Your task to perform on an android device: install app "Life360: Find Family & Friends" Image 0: 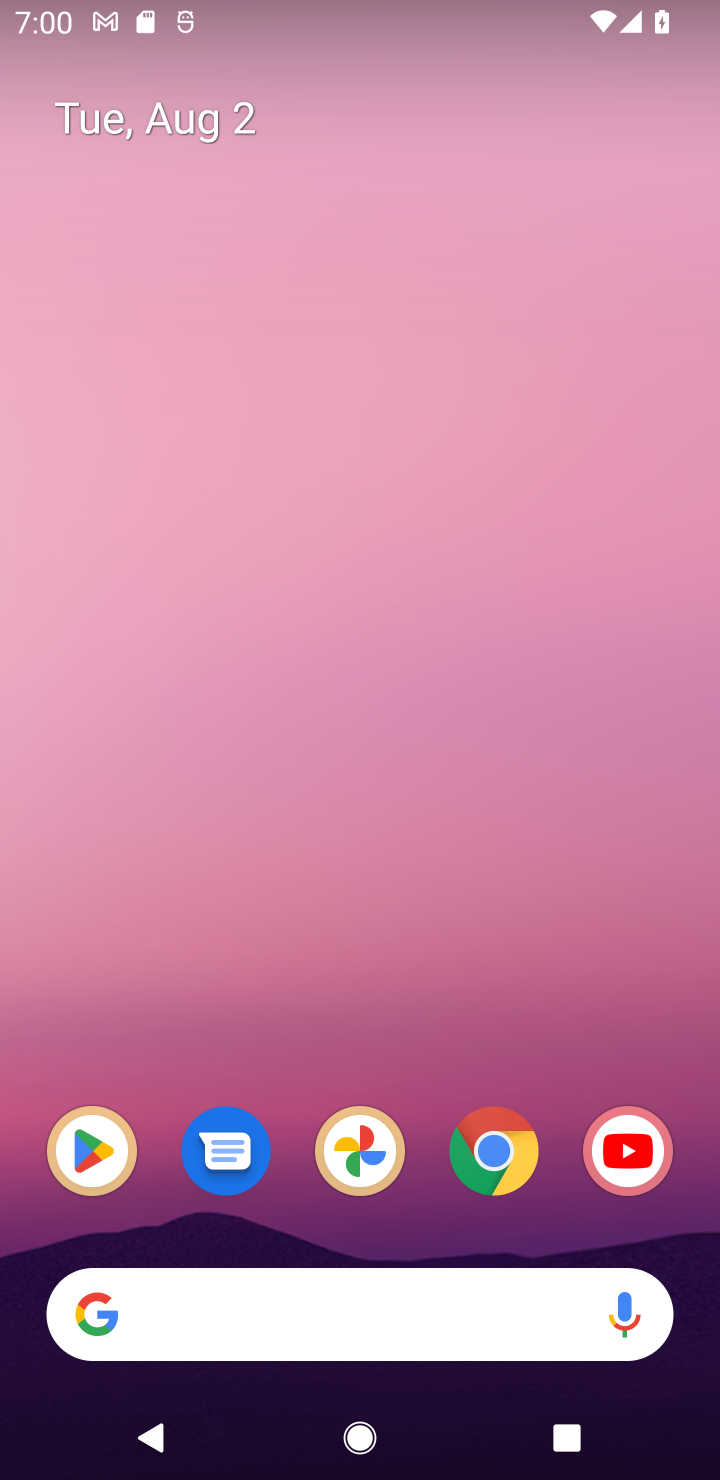
Step 0: click (113, 1142)
Your task to perform on an android device: install app "Life360: Find Family & Friends" Image 1: 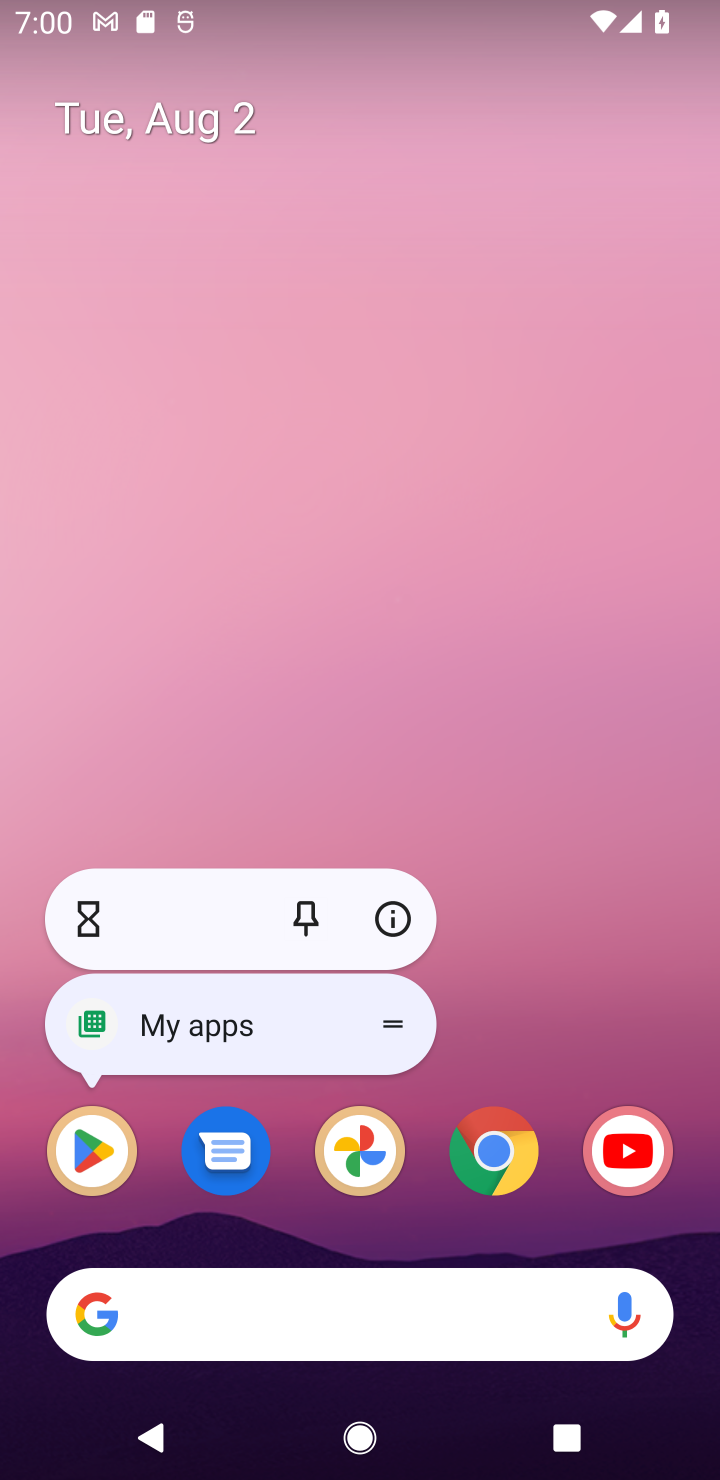
Step 1: click (113, 1142)
Your task to perform on an android device: install app "Life360: Find Family & Friends" Image 2: 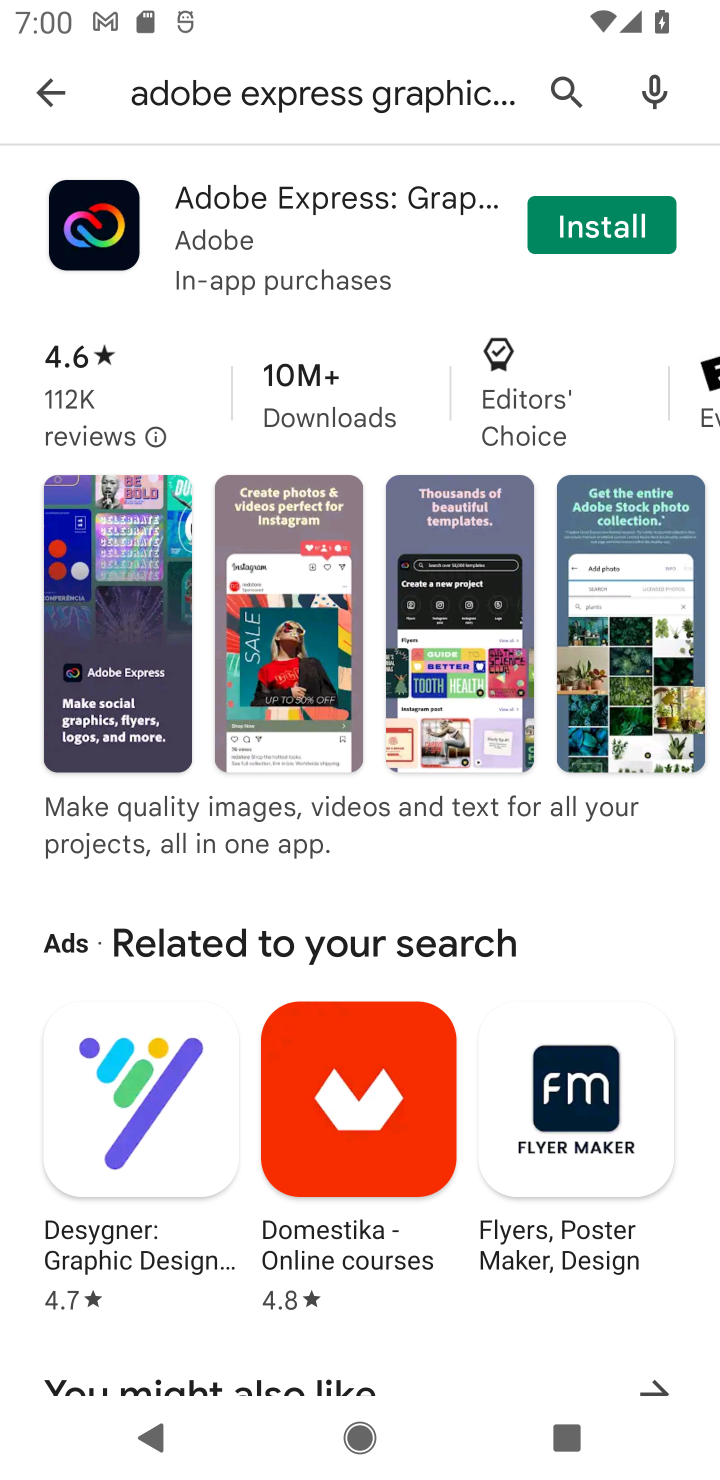
Step 2: click (566, 81)
Your task to perform on an android device: install app "Life360: Find Family & Friends" Image 3: 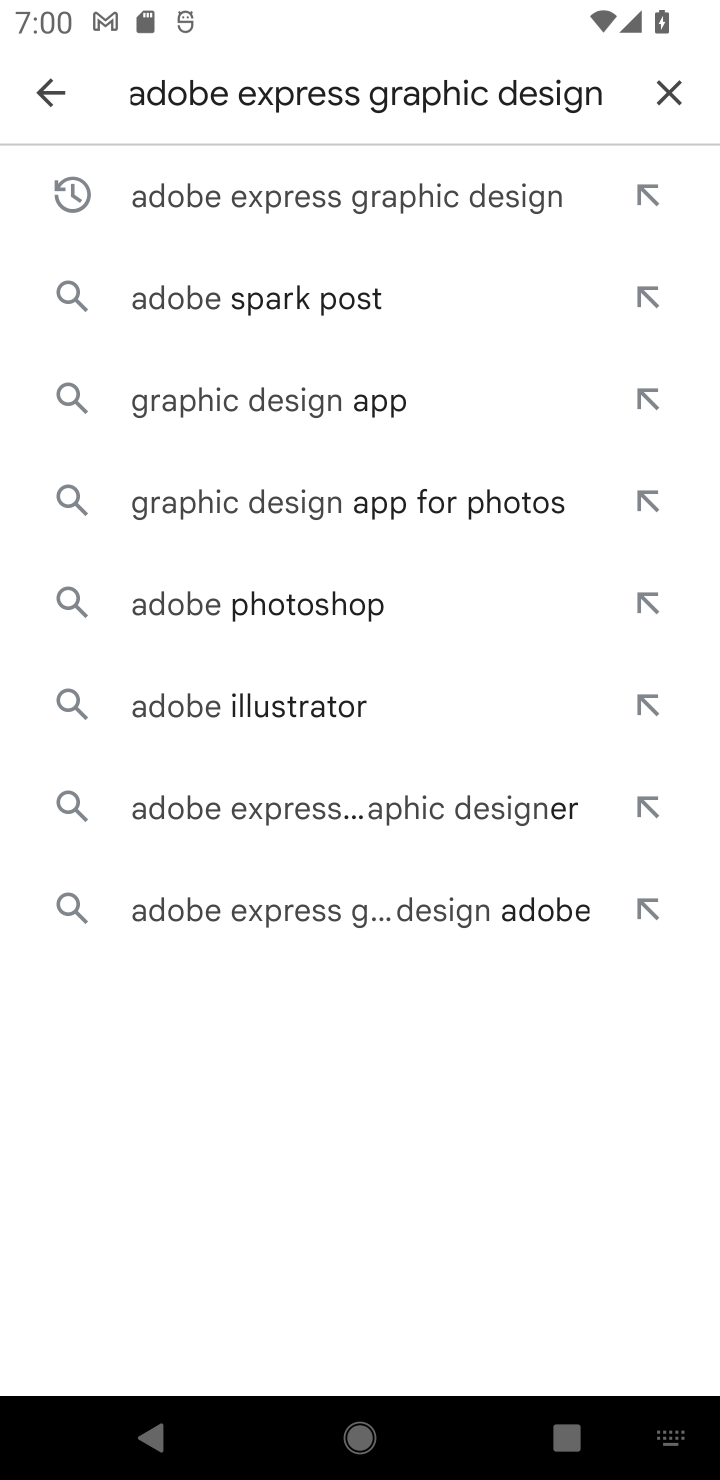
Step 3: click (662, 95)
Your task to perform on an android device: install app "Life360: Find Family & Friends" Image 4: 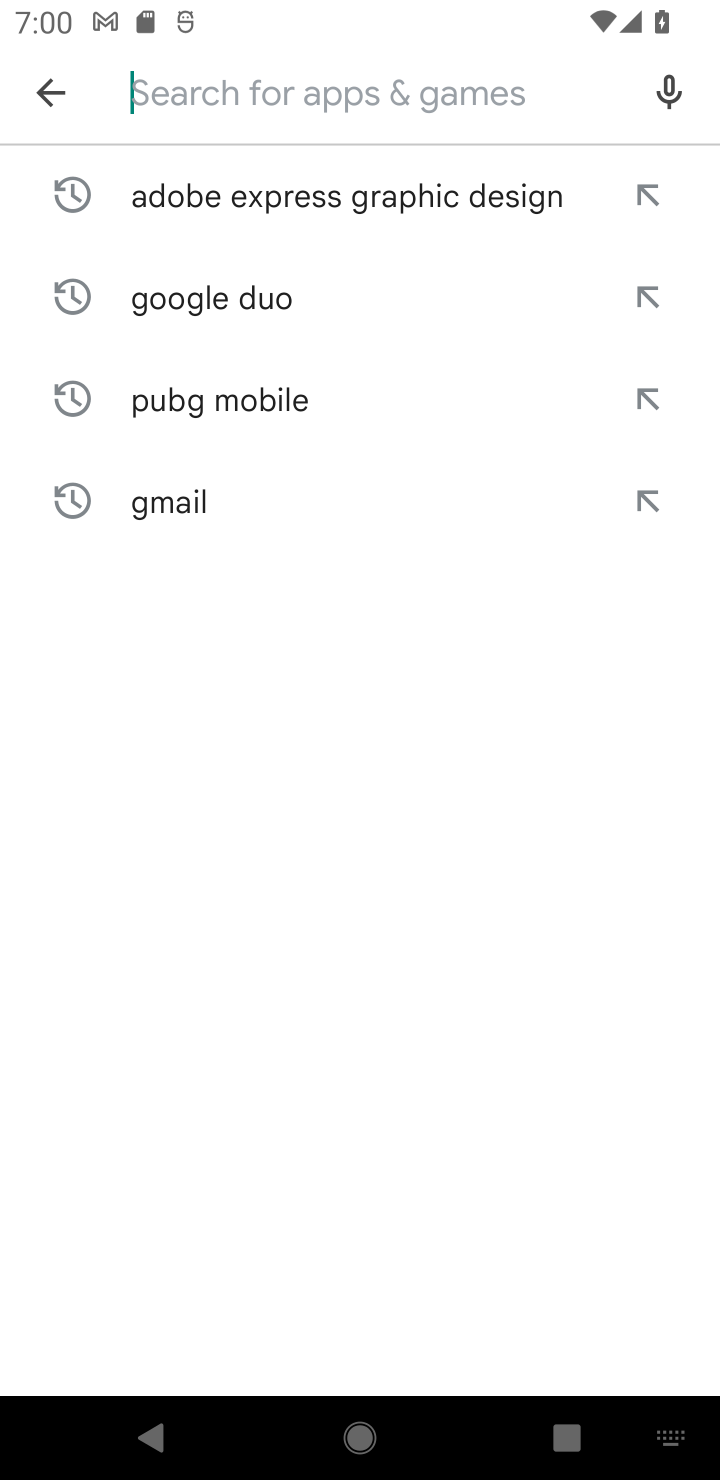
Step 4: type "Life360: Find Family & Friends"
Your task to perform on an android device: install app "Life360: Find Family & Friends" Image 5: 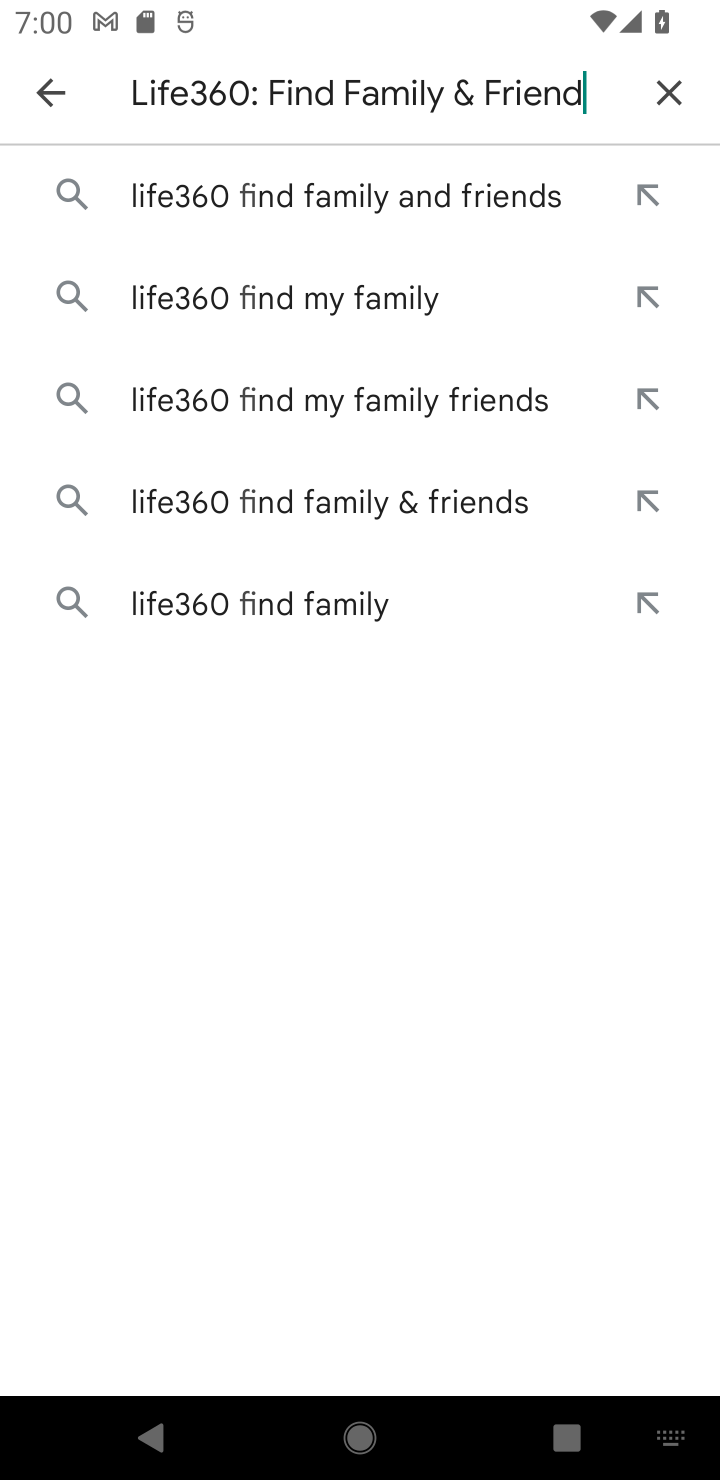
Step 5: type ""
Your task to perform on an android device: install app "Life360: Find Family & Friends" Image 6: 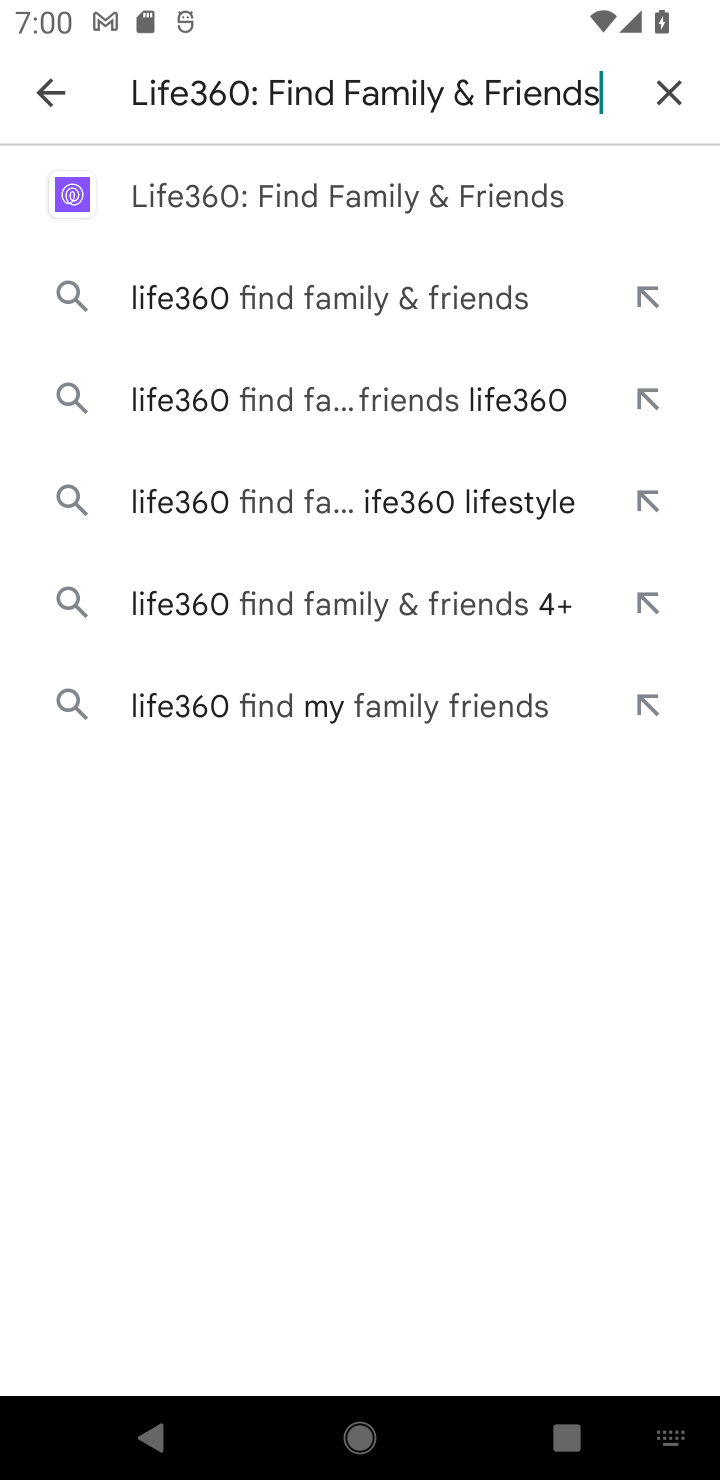
Step 6: click (247, 210)
Your task to perform on an android device: install app "Life360: Find Family & Friends" Image 7: 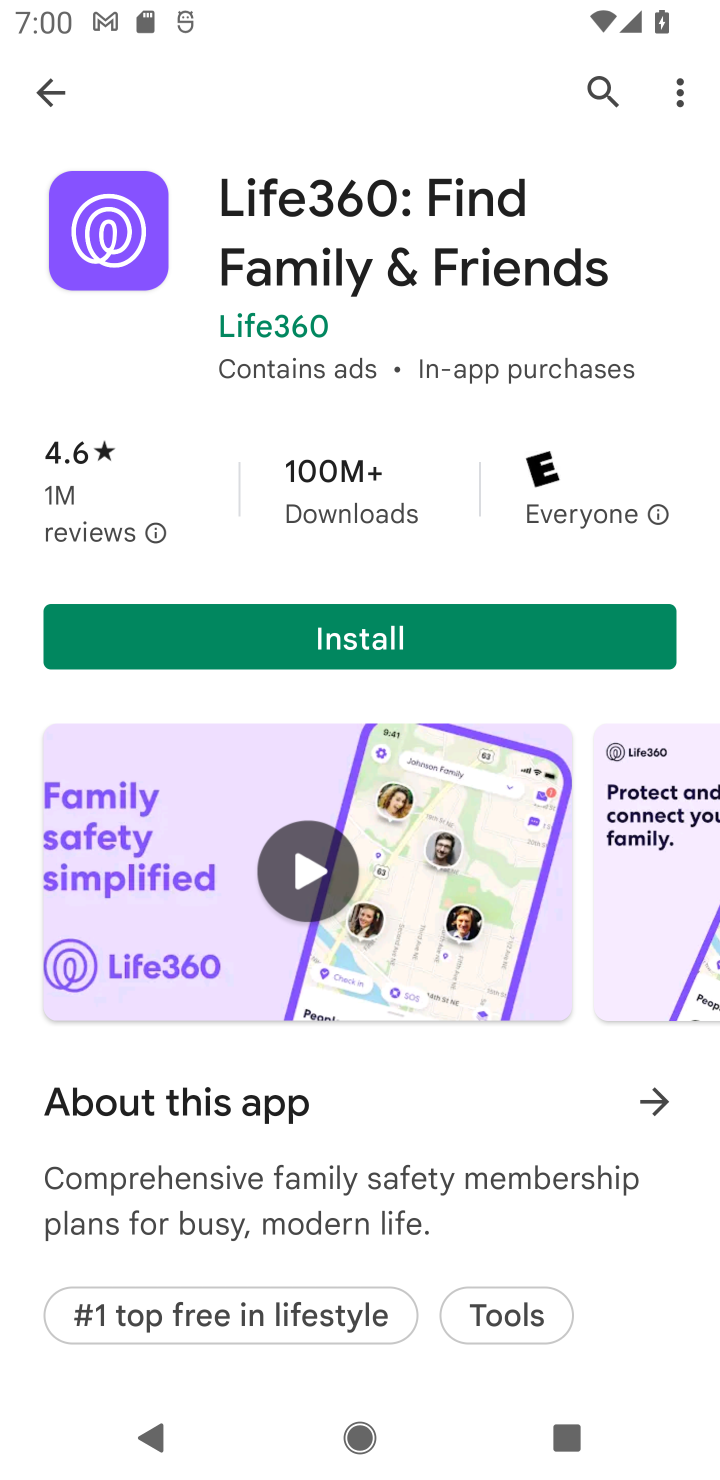
Step 7: click (326, 624)
Your task to perform on an android device: install app "Life360: Find Family & Friends" Image 8: 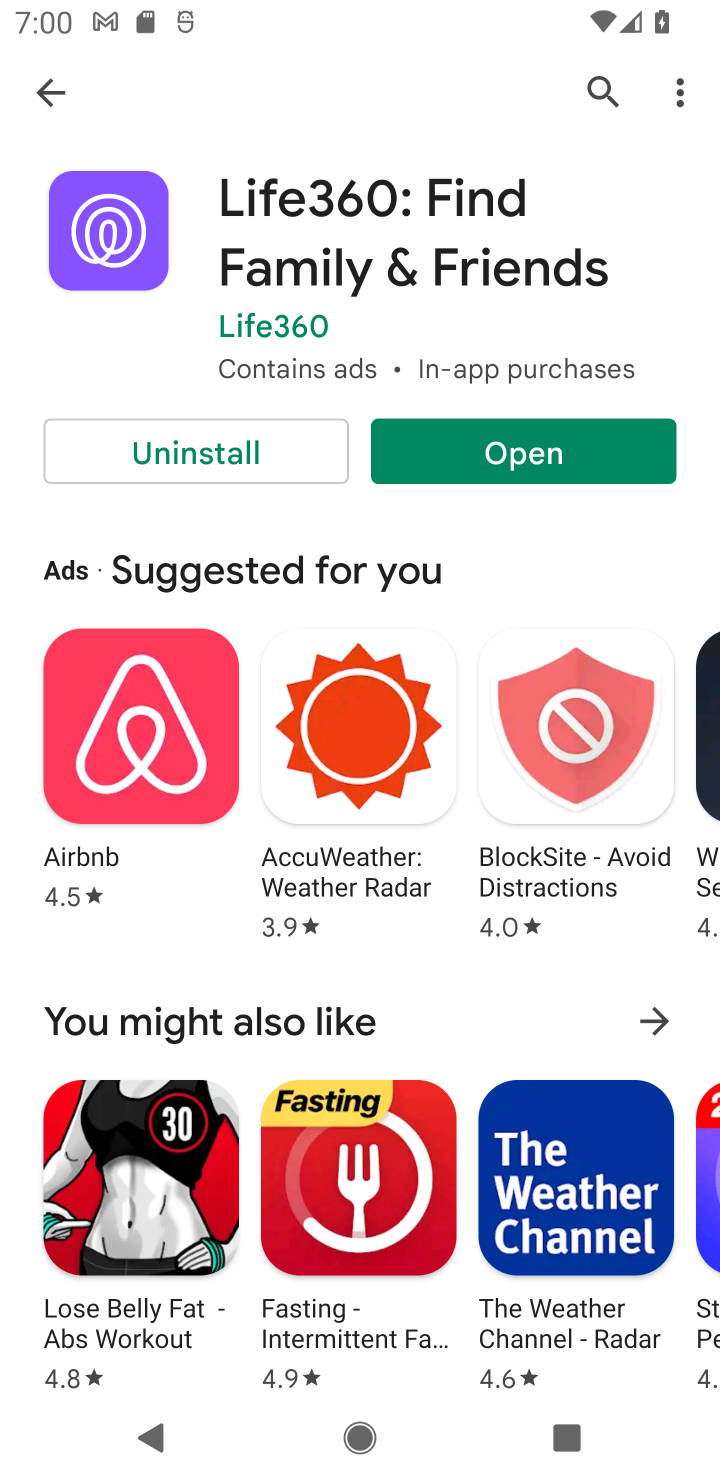
Step 8: task complete